Your task to perform on an android device: Play the last video I watched on Youtube Image 0: 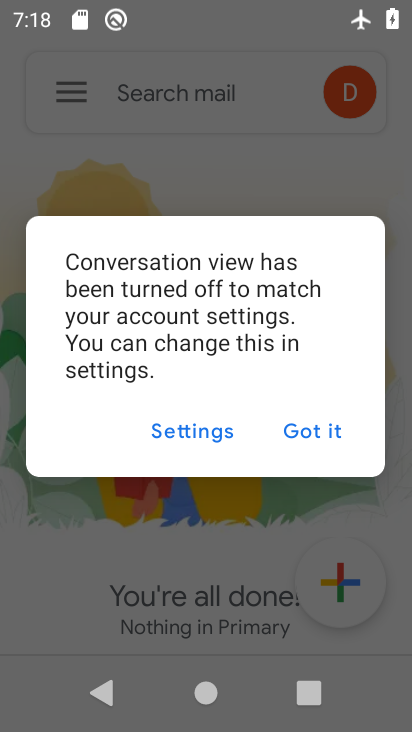
Step 0: press home button
Your task to perform on an android device: Play the last video I watched on Youtube Image 1: 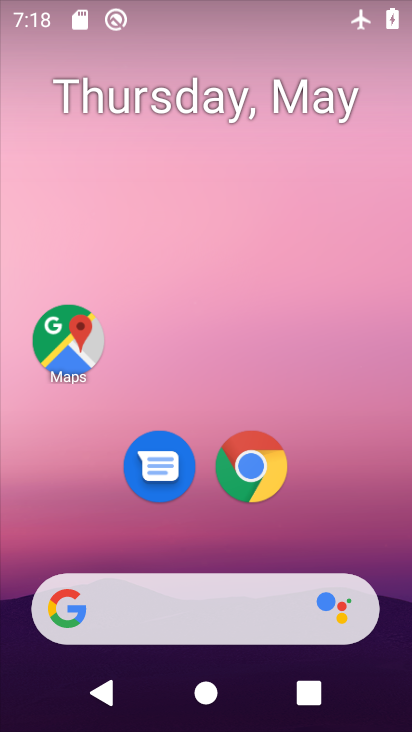
Step 1: drag from (351, 528) to (287, 155)
Your task to perform on an android device: Play the last video I watched on Youtube Image 2: 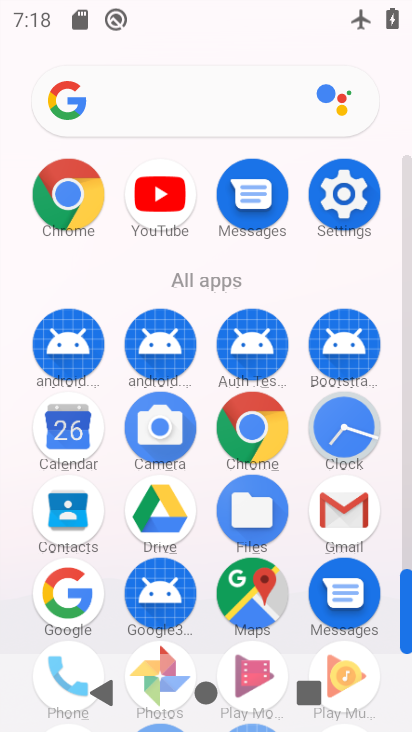
Step 2: click (161, 183)
Your task to perform on an android device: Play the last video I watched on Youtube Image 3: 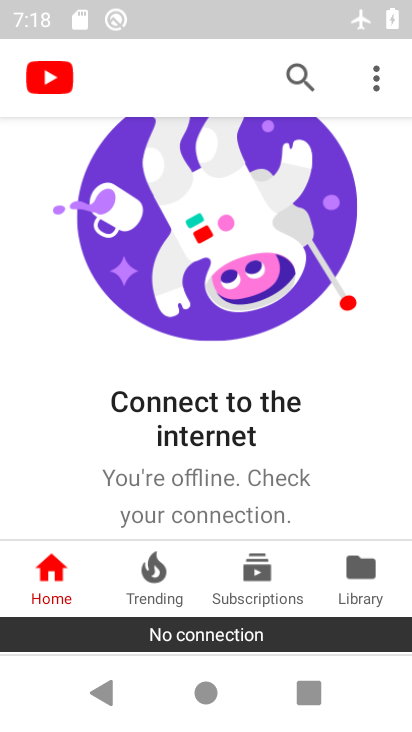
Step 3: task complete